Your task to perform on an android device: Open display settings Image 0: 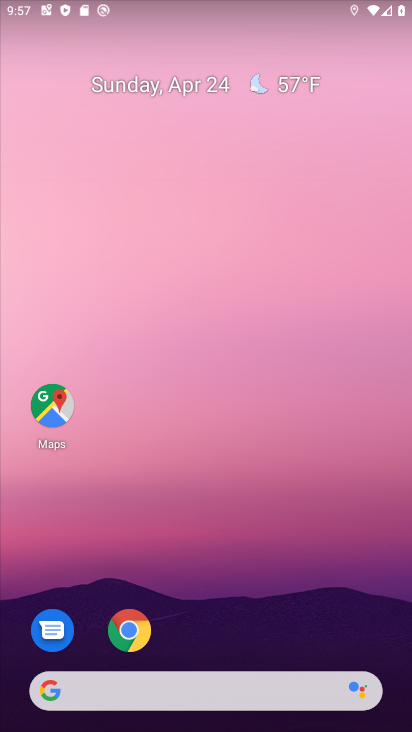
Step 0: drag from (229, 560) to (212, 41)
Your task to perform on an android device: Open display settings Image 1: 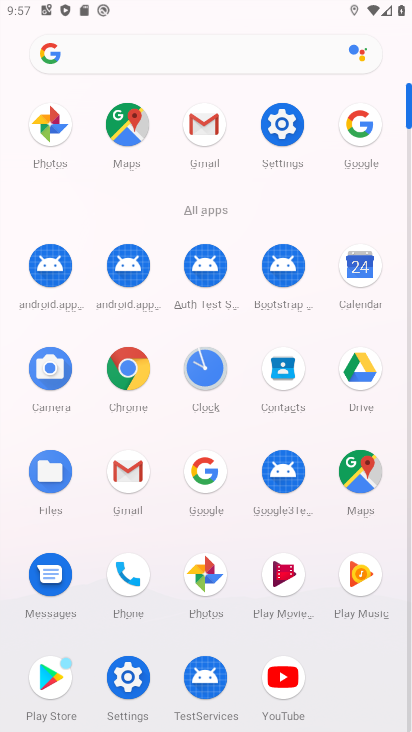
Step 1: click (283, 124)
Your task to perform on an android device: Open display settings Image 2: 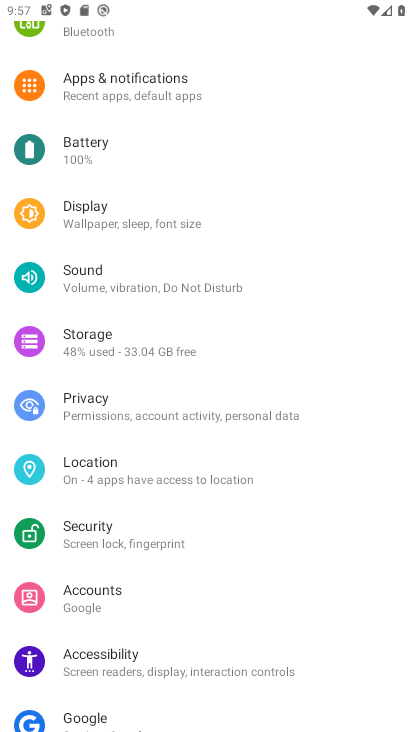
Step 2: click (143, 225)
Your task to perform on an android device: Open display settings Image 3: 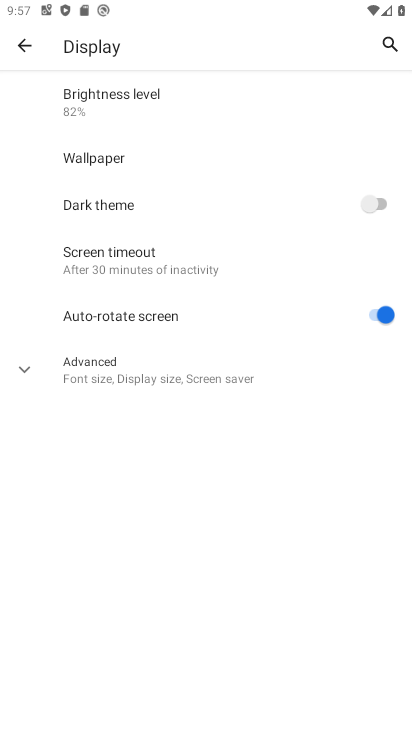
Step 3: task complete